Your task to perform on an android device: check the backup settings in the google photos Image 0: 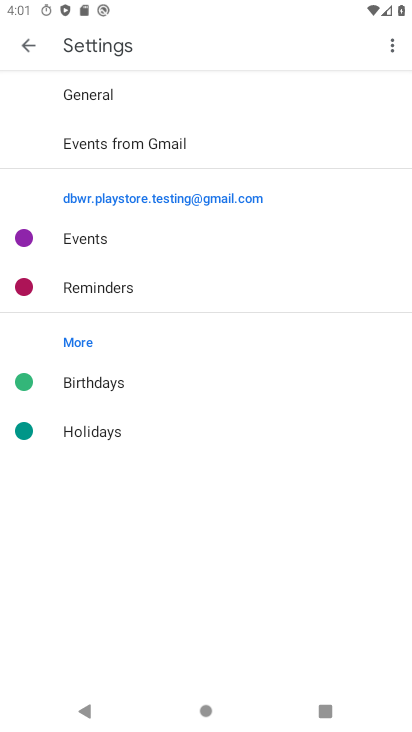
Step 0: press home button
Your task to perform on an android device: check the backup settings in the google photos Image 1: 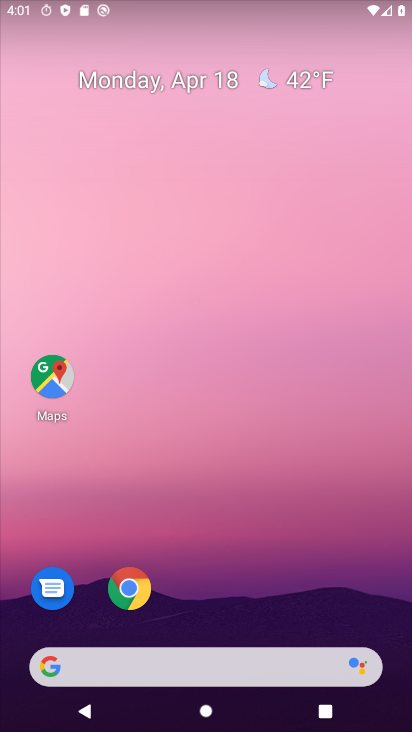
Step 1: drag from (214, 499) to (267, 32)
Your task to perform on an android device: check the backup settings in the google photos Image 2: 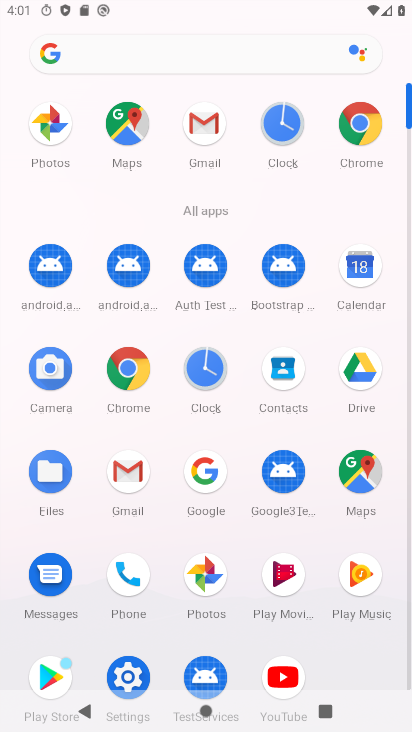
Step 2: click (53, 121)
Your task to perform on an android device: check the backup settings in the google photos Image 3: 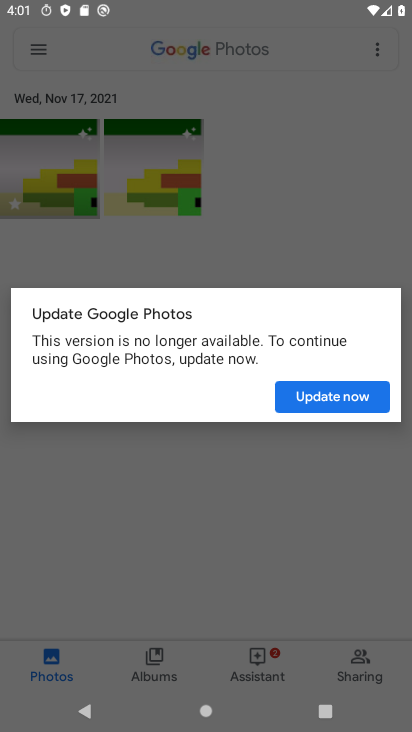
Step 3: click (328, 396)
Your task to perform on an android device: check the backup settings in the google photos Image 4: 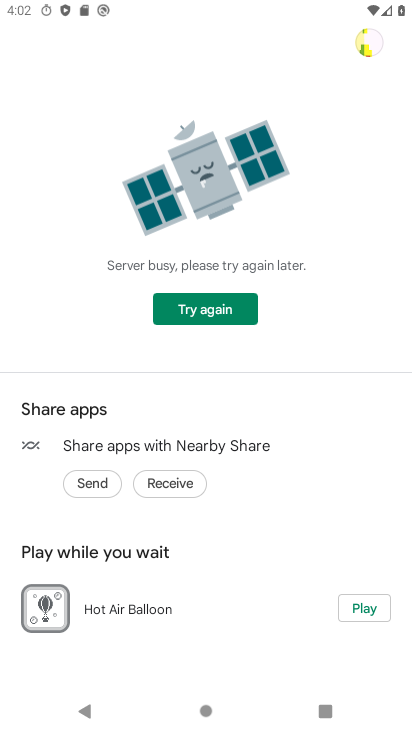
Step 4: click (363, 612)
Your task to perform on an android device: check the backup settings in the google photos Image 5: 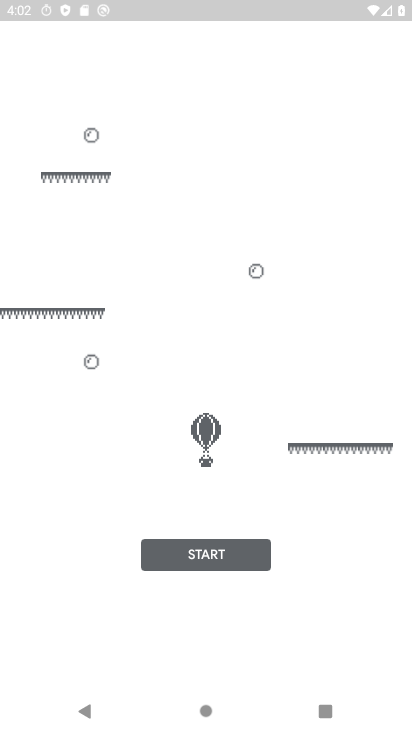
Step 5: click (207, 560)
Your task to perform on an android device: check the backup settings in the google photos Image 6: 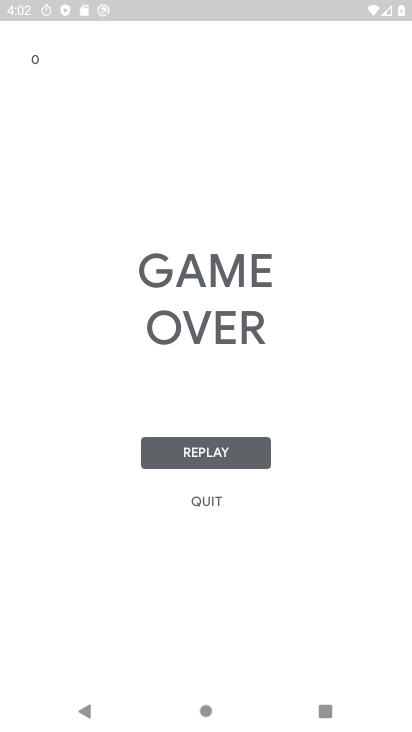
Step 6: click (207, 560)
Your task to perform on an android device: check the backup settings in the google photos Image 7: 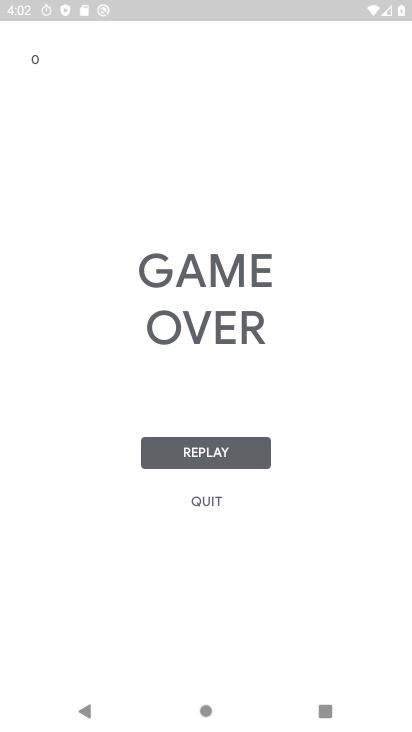
Step 7: task complete